Your task to perform on an android device: check battery use Image 0: 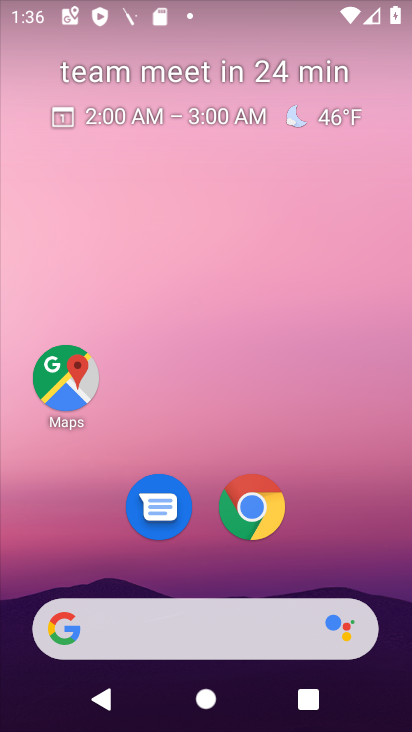
Step 0: drag from (314, 644) to (310, 231)
Your task to perform on an android device: check battery use Image 1: 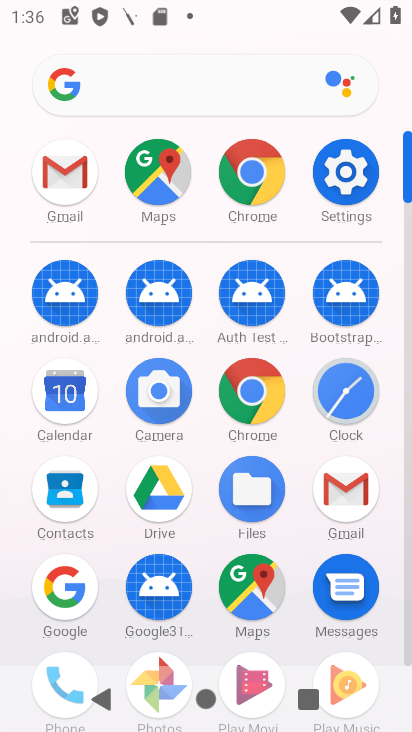
Step 1: click (341, 180)
Your task to perform on an android device: check battery use Image 2: 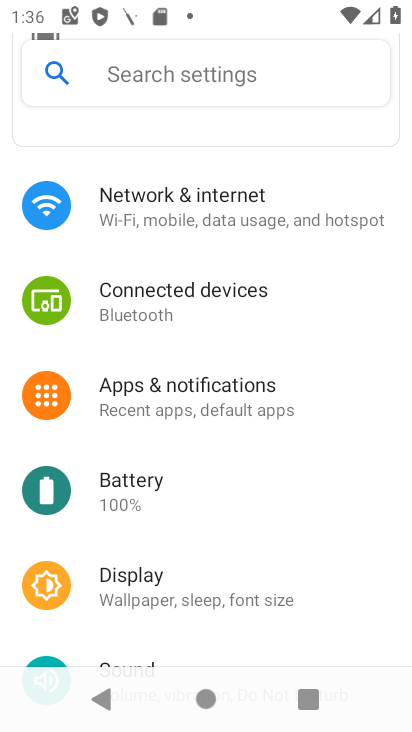
Step 2: click (193, 83)
Your task to perform on an android device: check battery use Image 3: 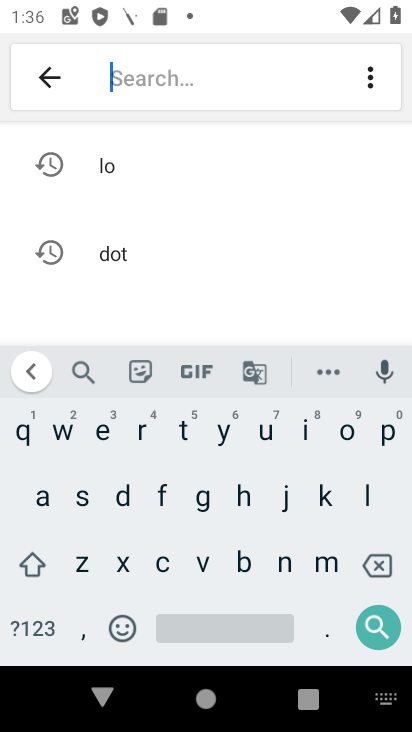
Step 3: click (246, 567)
Your task to perform on an android device: check battery use Image 4: 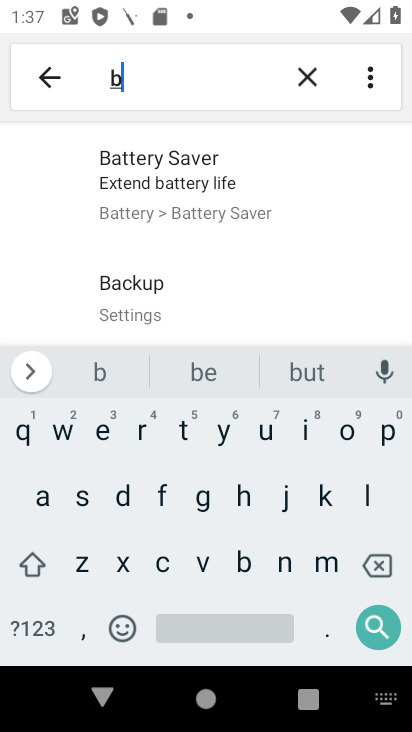
Step 4: click (43, 501)
Your task to perform on an android device: check battery use Image 5: 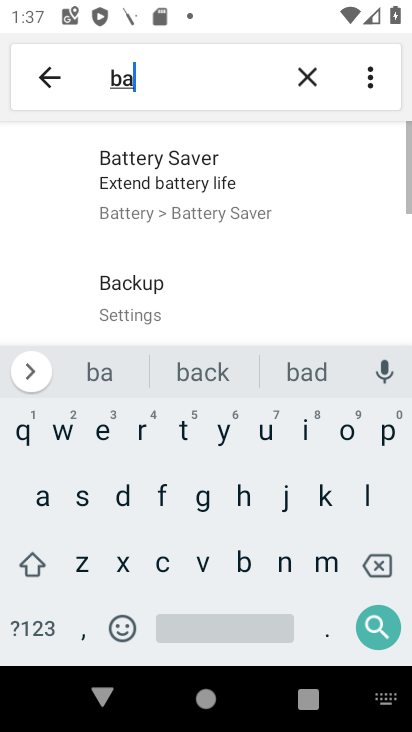
Step 5: click (183, 434)
Your task to perform on an android device: check battery use Image 6: 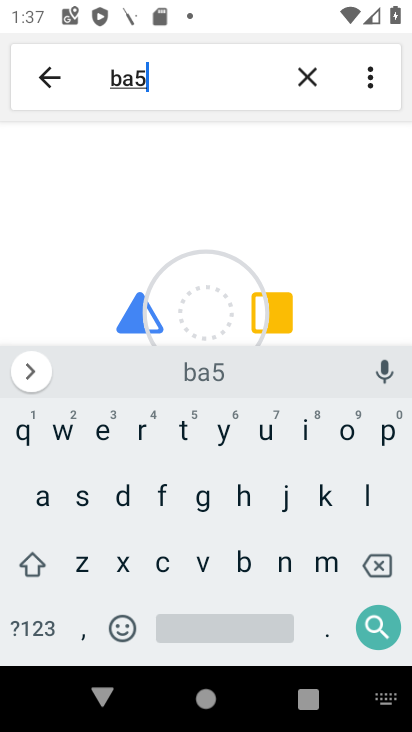
Step 6: click (369, 563)
Your task to perform on an android device: check battery use Image 7: 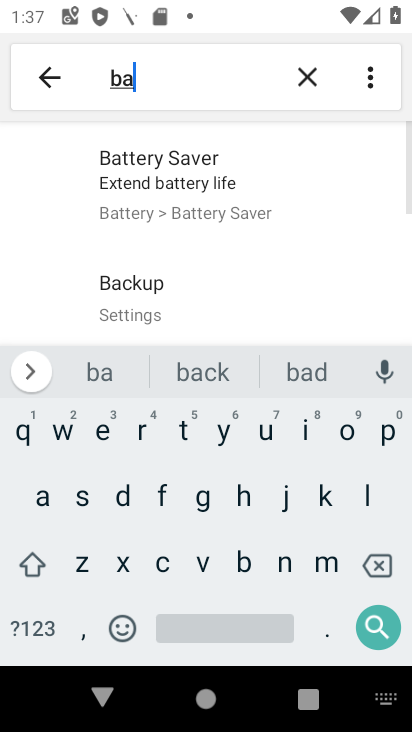
Step 7: click (183, 443)
Your task to perform on an android device: check battery use Image 8: 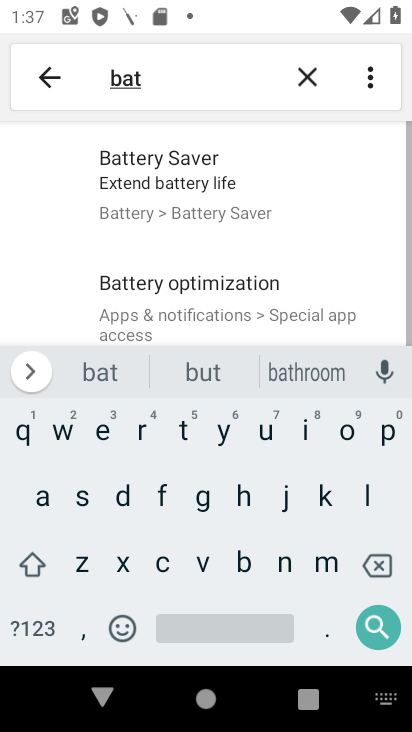
Step 8: click (183, 443)
Your task to perform on an android device: check battery use Image 9: 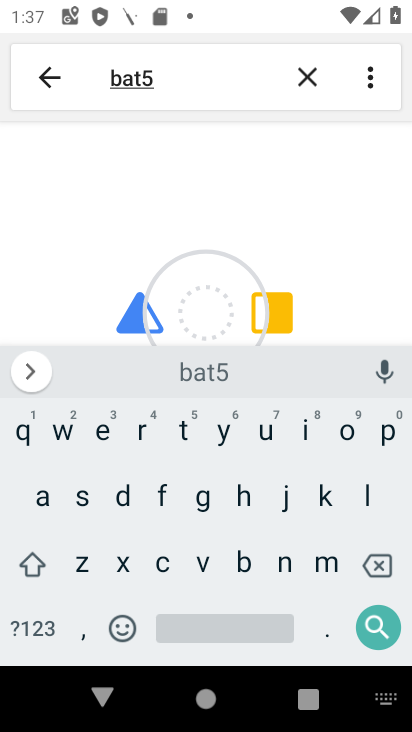
Step 9: click (382, 574)
Your task to perform on an android device: check battery use Image 10: 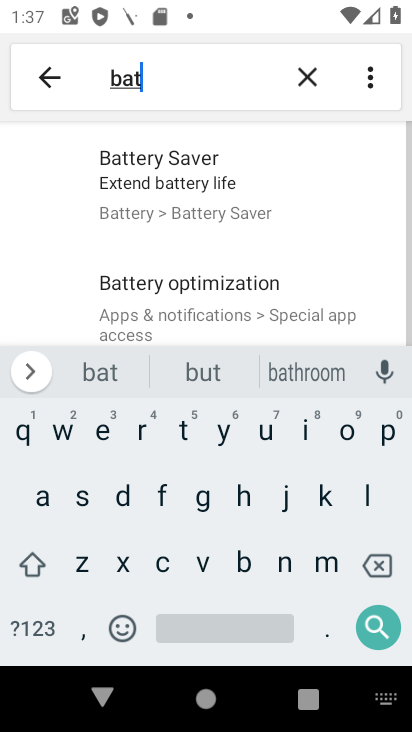
Step 10: click (178, 442)
Your task to perform on an android device: check battery use Image 11: 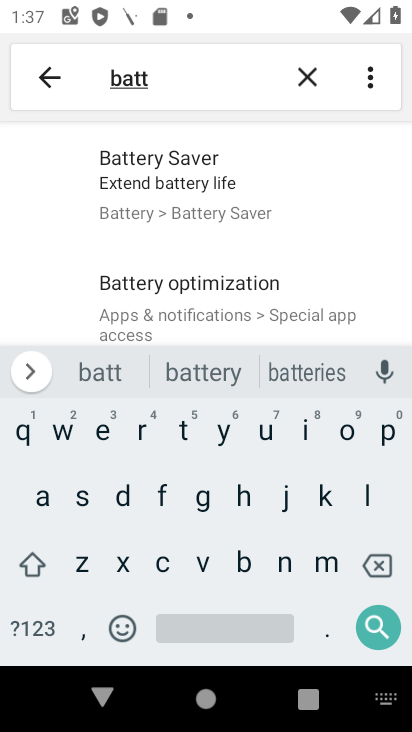
Step 11: click (204, 374)
Your task to perform on an android device: check battery use Image 12: 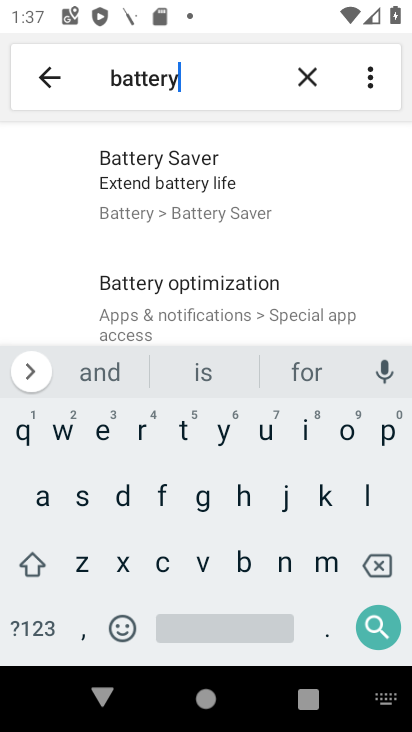
Step 12: click (261, 424)
Your task to perform on an android device: check battery use Image 13: 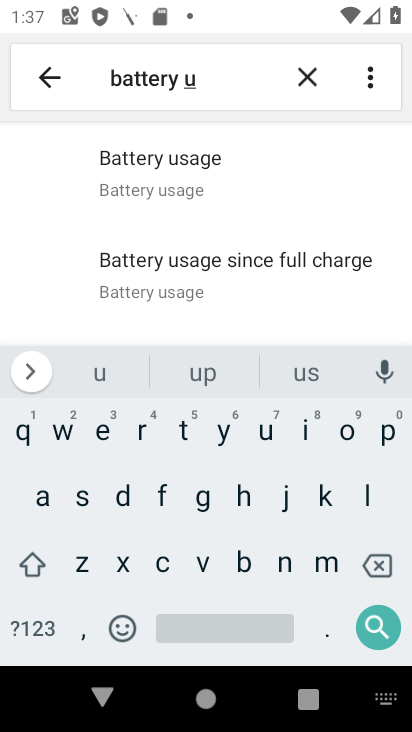
Step 13: click (168, 162)
Your task to perform on an android device: check battery use Image 14: 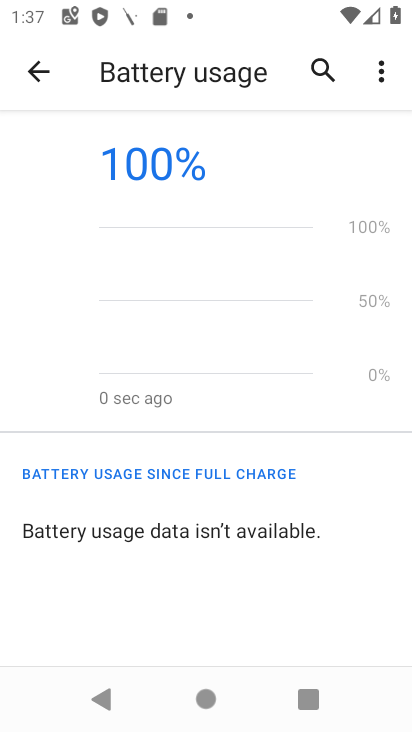
Step 14: task complete